Your task to perform on an android device: uninstall "DoorDash - Dasher" Image 0: 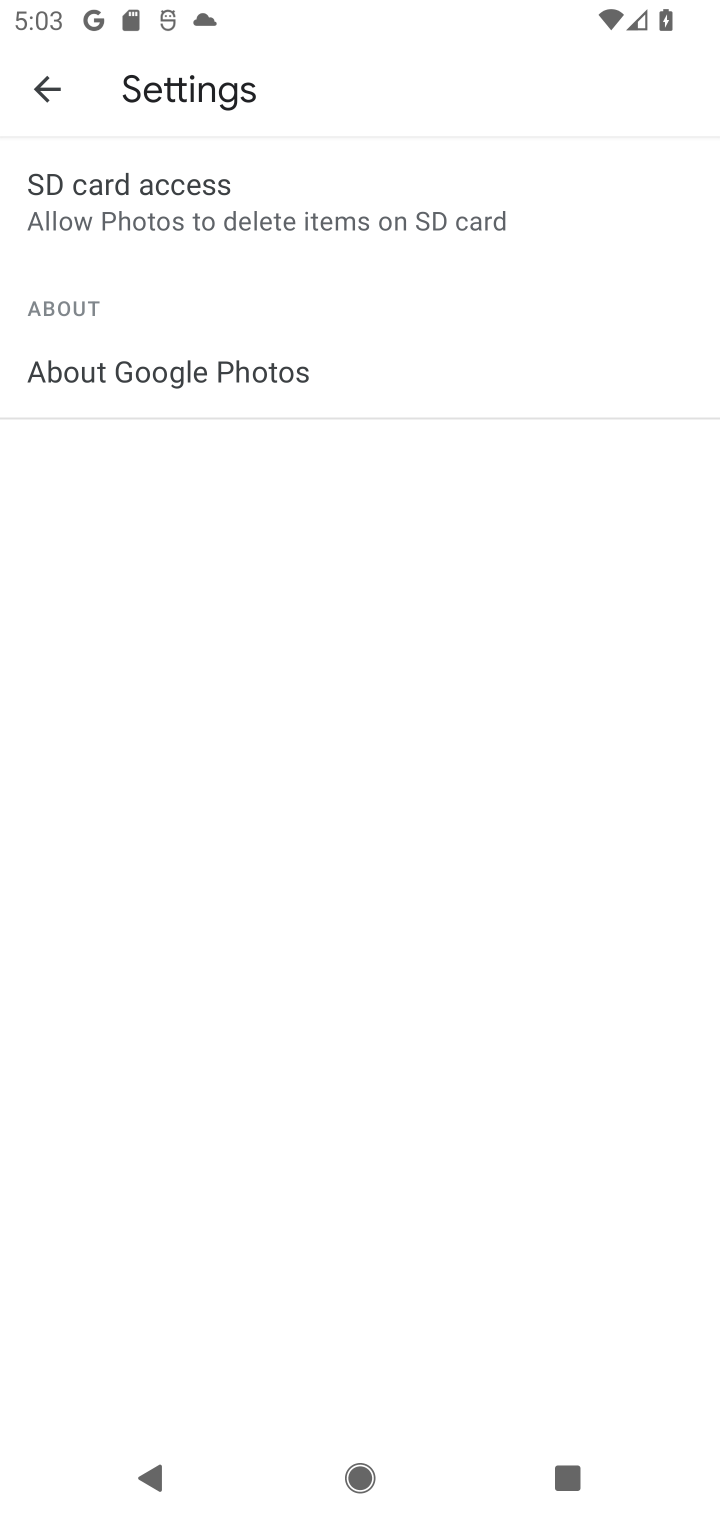
Step 0: press home button
Your task to perform on an android device: uninstall "DoorDash - Dasher" Image 1: 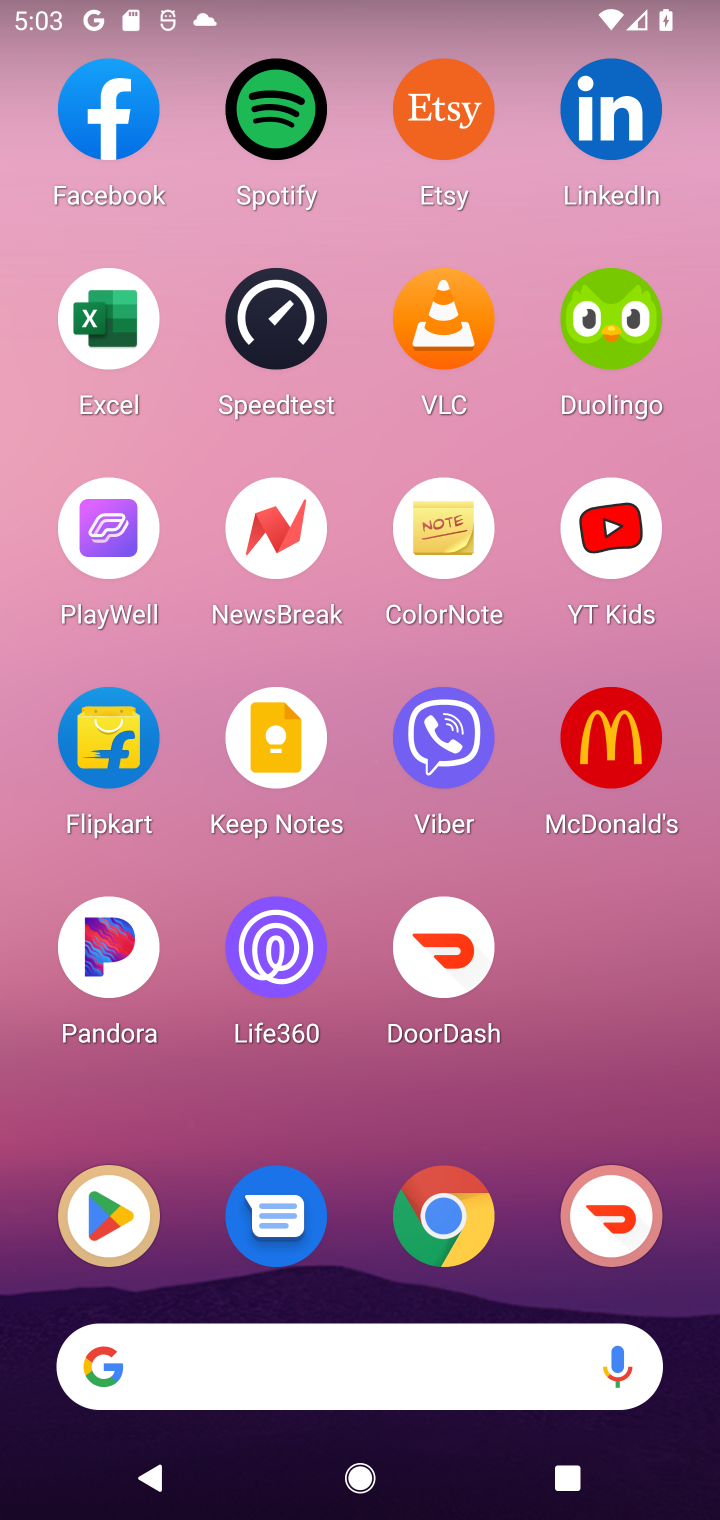
Step 1: click (471, 1004)
Your task to perform on an android device: uninstall "DoorDash - Dasher" Image 2: 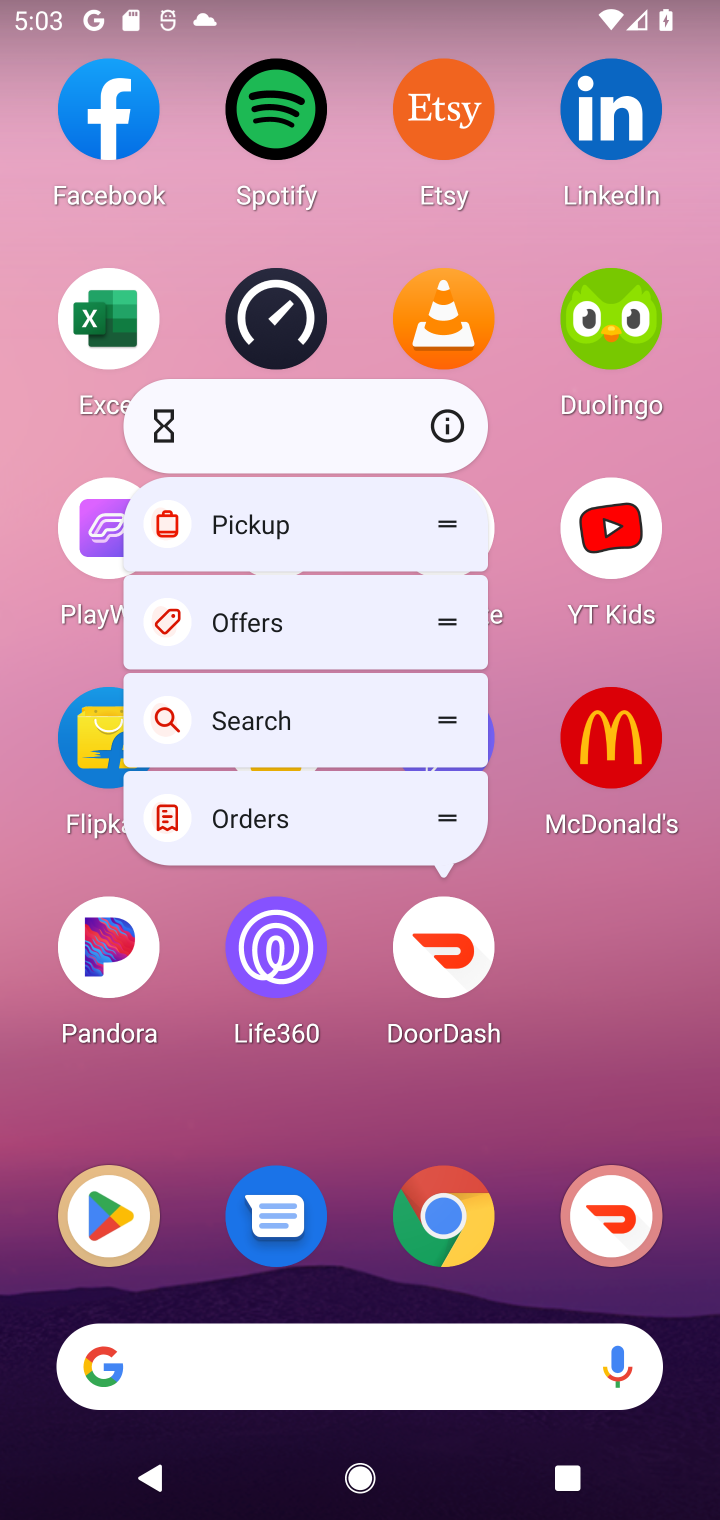
Step 2: click (435, 425)
Your task to perform on an android device: uninstall "DoorDash - Dasher" Image 3: 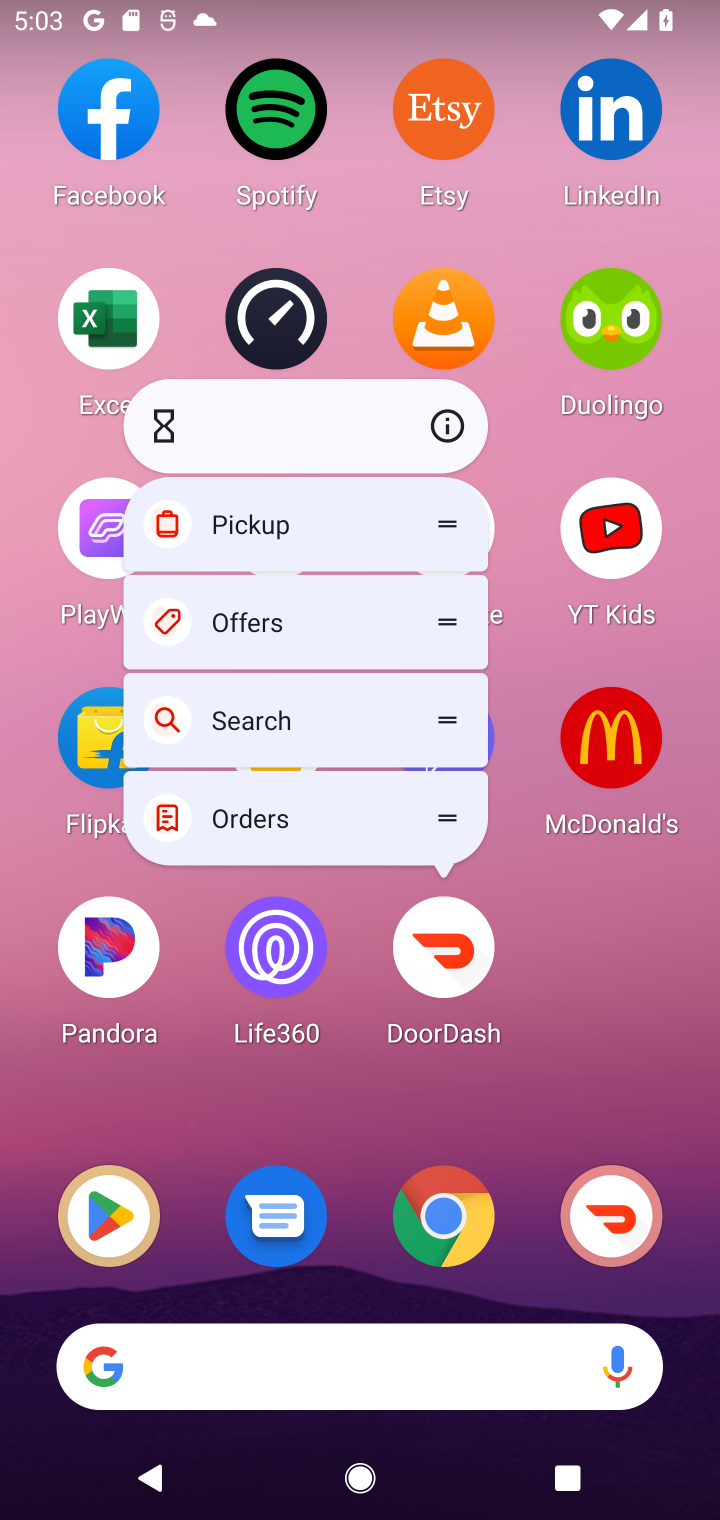
Step 3: click (435, 425)
Your task to perform on an android device: uninstall "DoorDash - Dasher" Image 4: 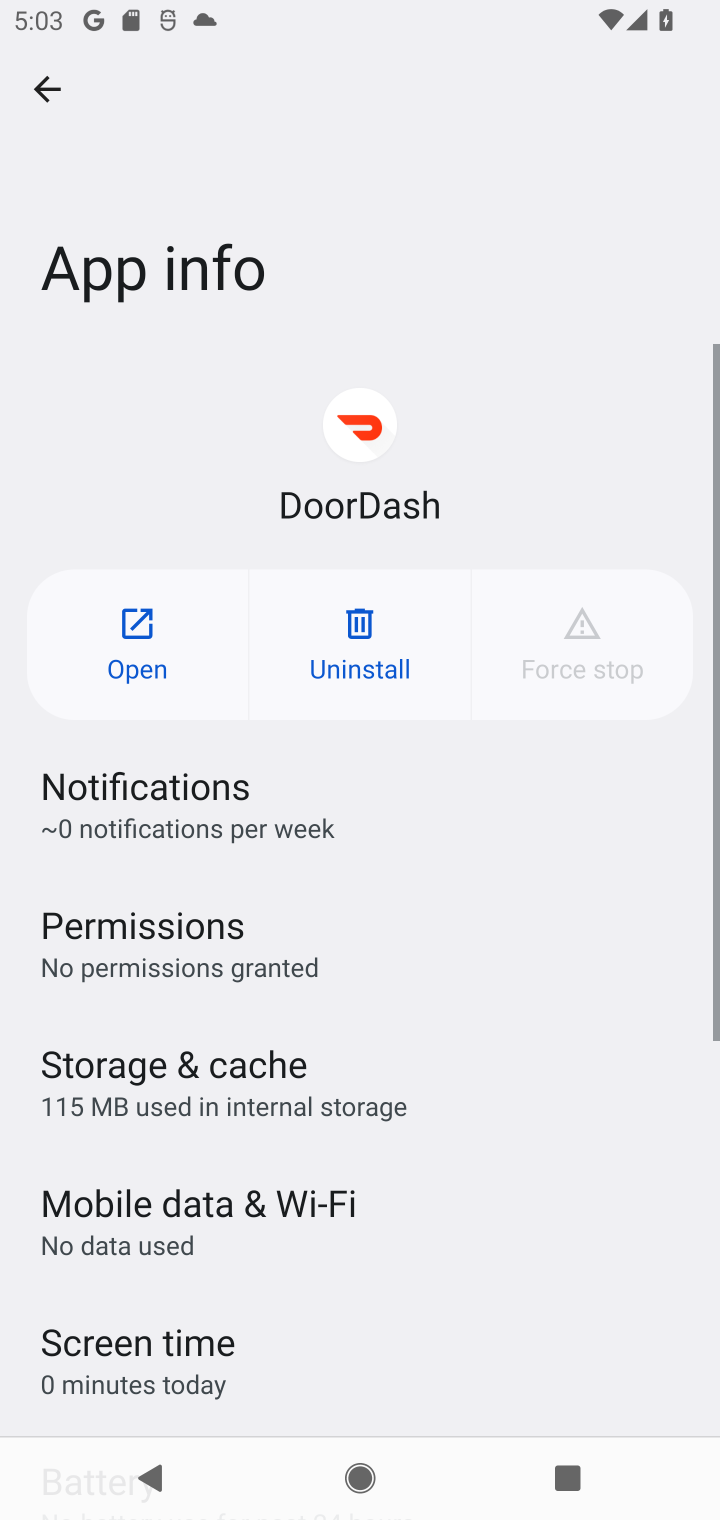
Step 4: click (380, 637)
Your task to perform on an android device: uninstall "DoorDash - Dasher" Image 5: 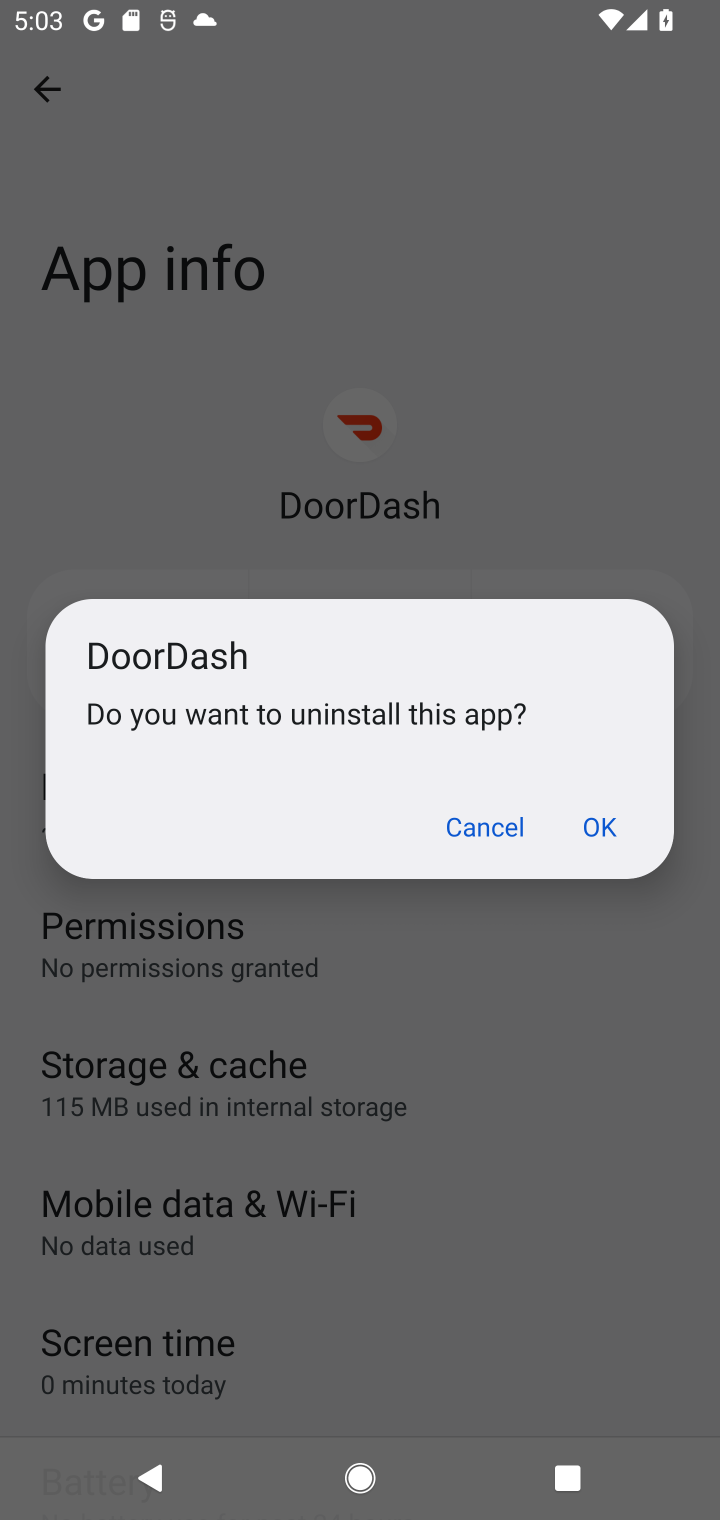
Step 5: click (595, 830)
Your task to perform on an android device: uninstall "DoorDash - Dasher" Image 6: 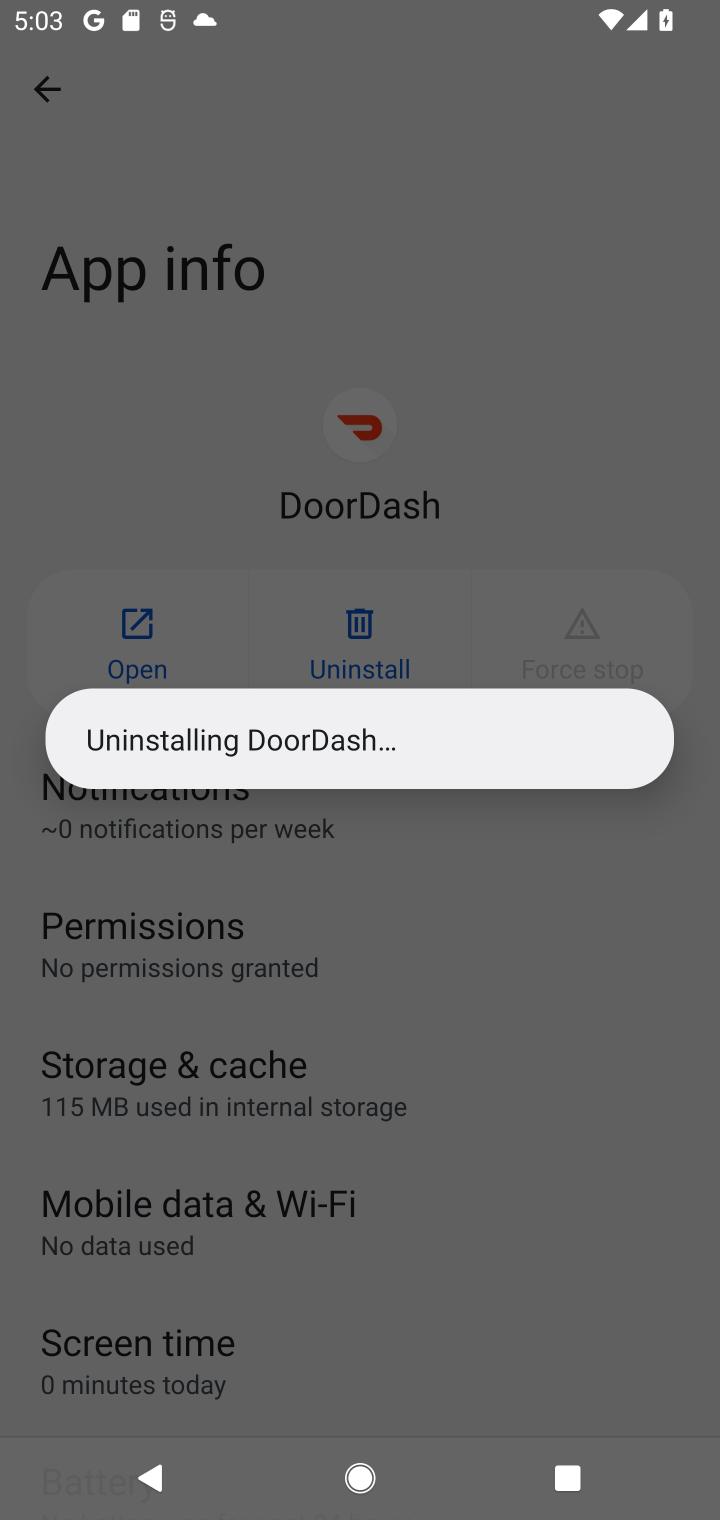
Step 6: task complete